Your task to perform on an android device: Search for "usb-c" on target.com, select the first entry, and add it to the cart. Image 0: 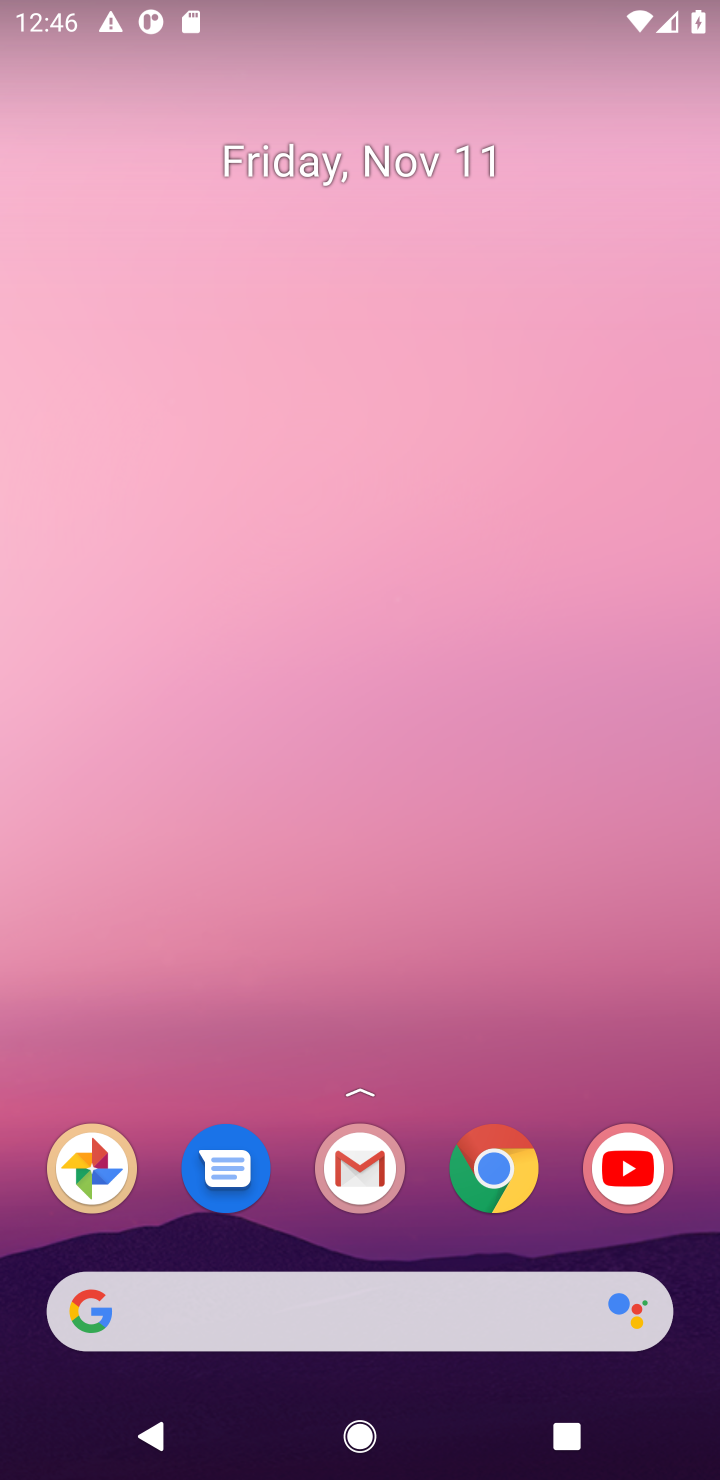
Step 0: click (490, 1180)
Your task to perform on an android device: Search for "usb-c" on target.com, select the first entry, and add it to the cart. Image 1: 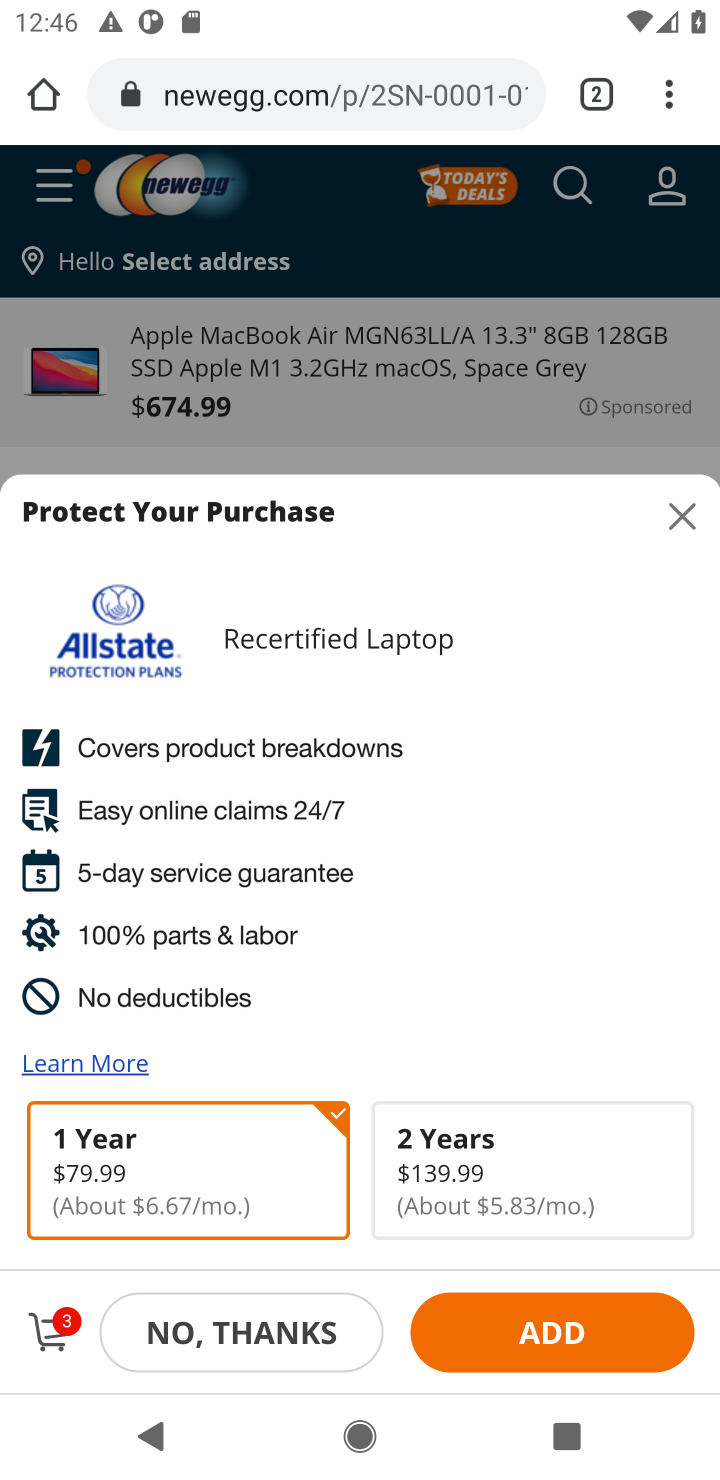
Step 1: click (286, 114)
Your task to perform on an android device: Search for "usb-c" on target.com, select the first entry, and add it to the cart. Image 2: 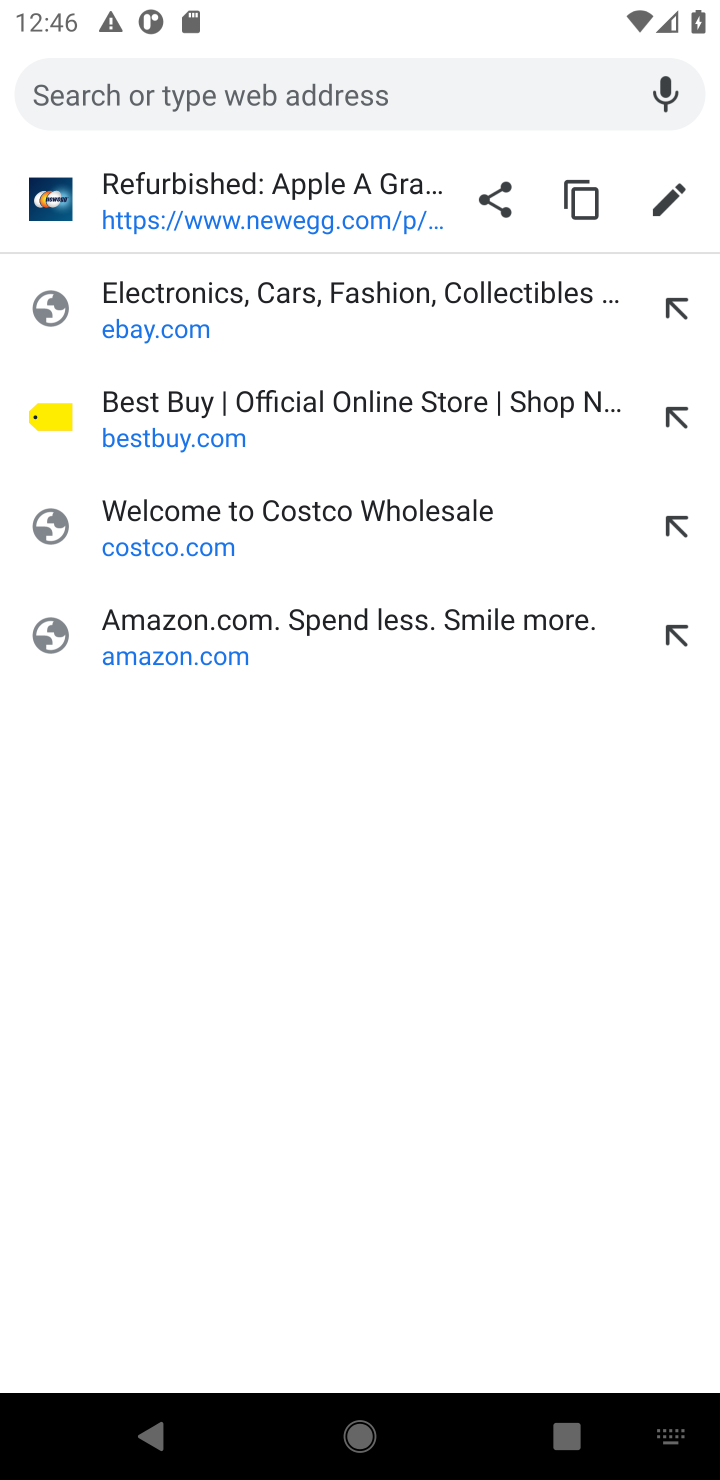
Step 2: type "target.com"
Your task to perform on an android device: Search for "usb-c" on target.com, select the first entry, and add it to the cart. Image 3: 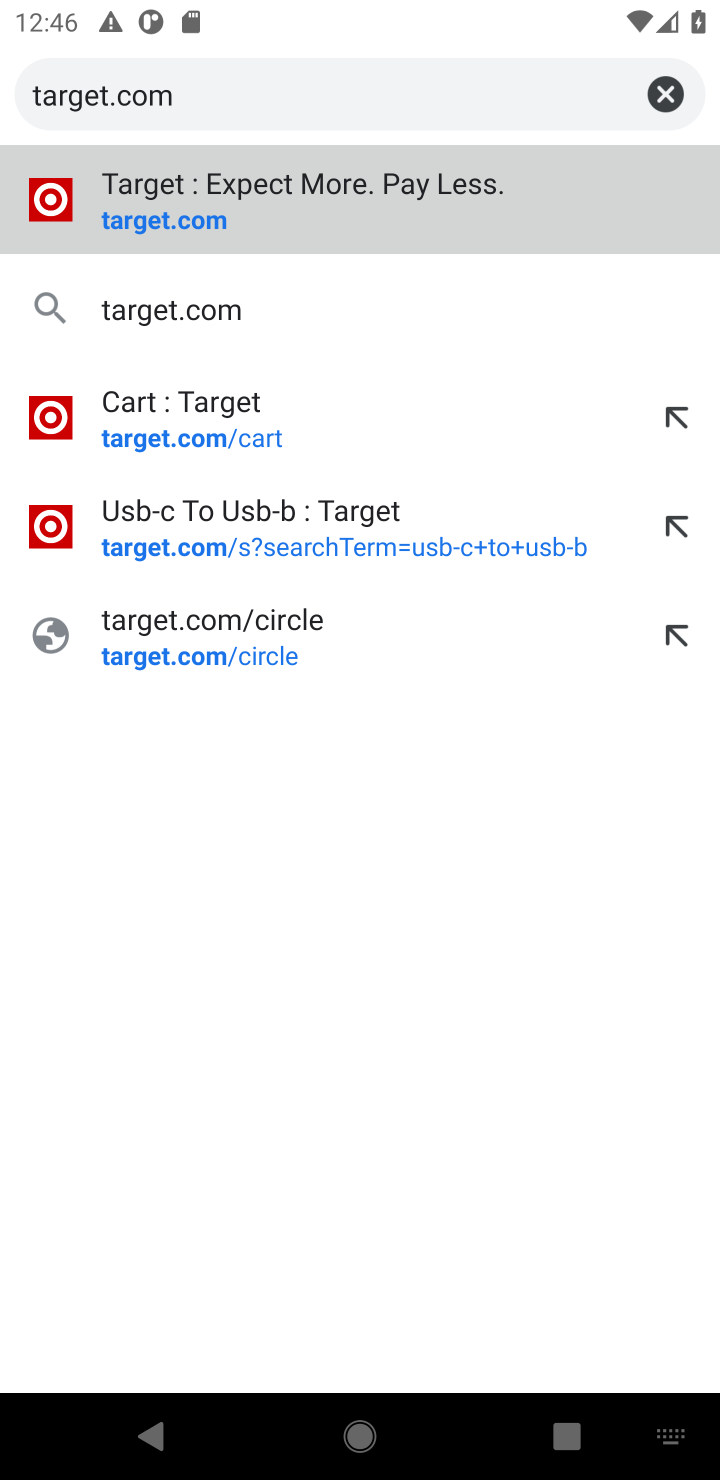
Step 3: click (159, 224)
Your task to perform on an android device: Search for "usb-c" on target.com, select the first entry, and add it to the cart. Image 4: 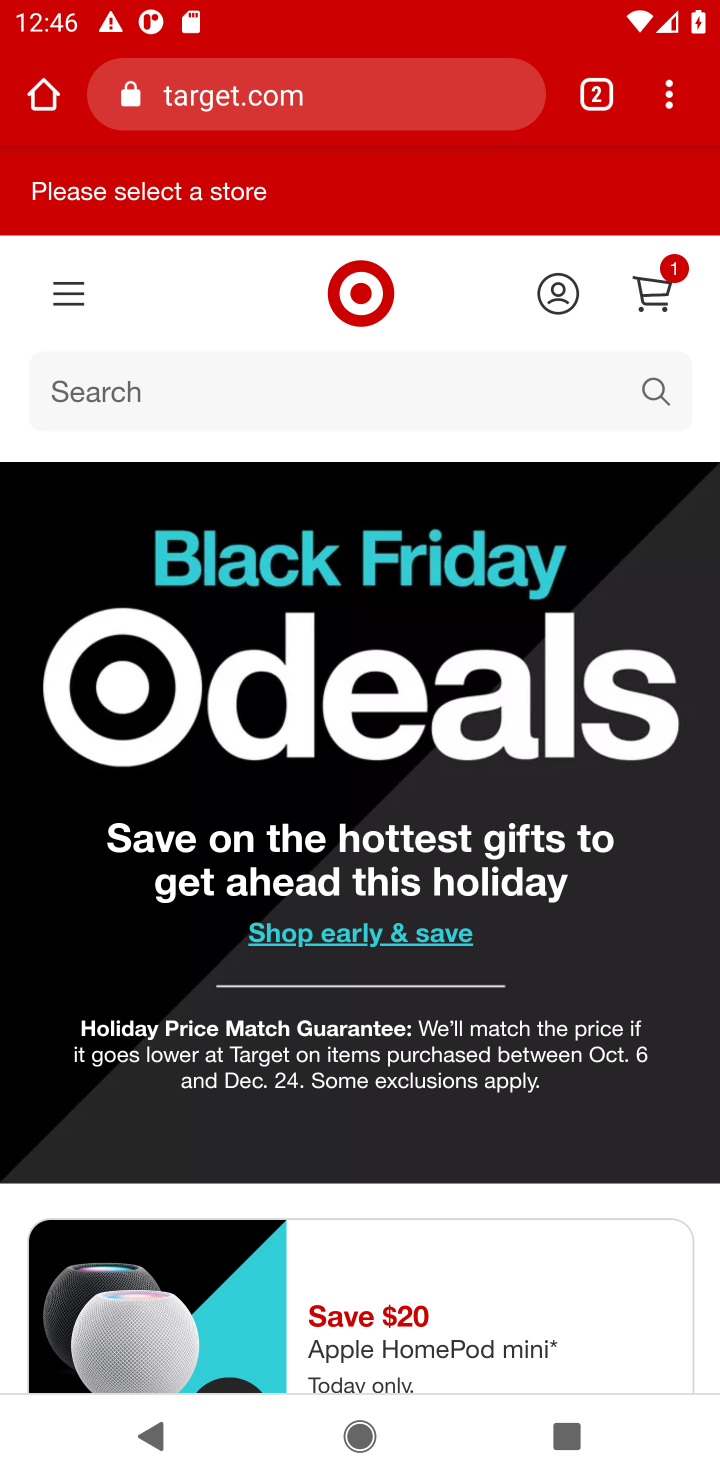
Step 4: click (653, 400)
Your task to perform on an android device: Search for "usb-c" on target.com, select the first entry, and add it to the cart. Image 5: 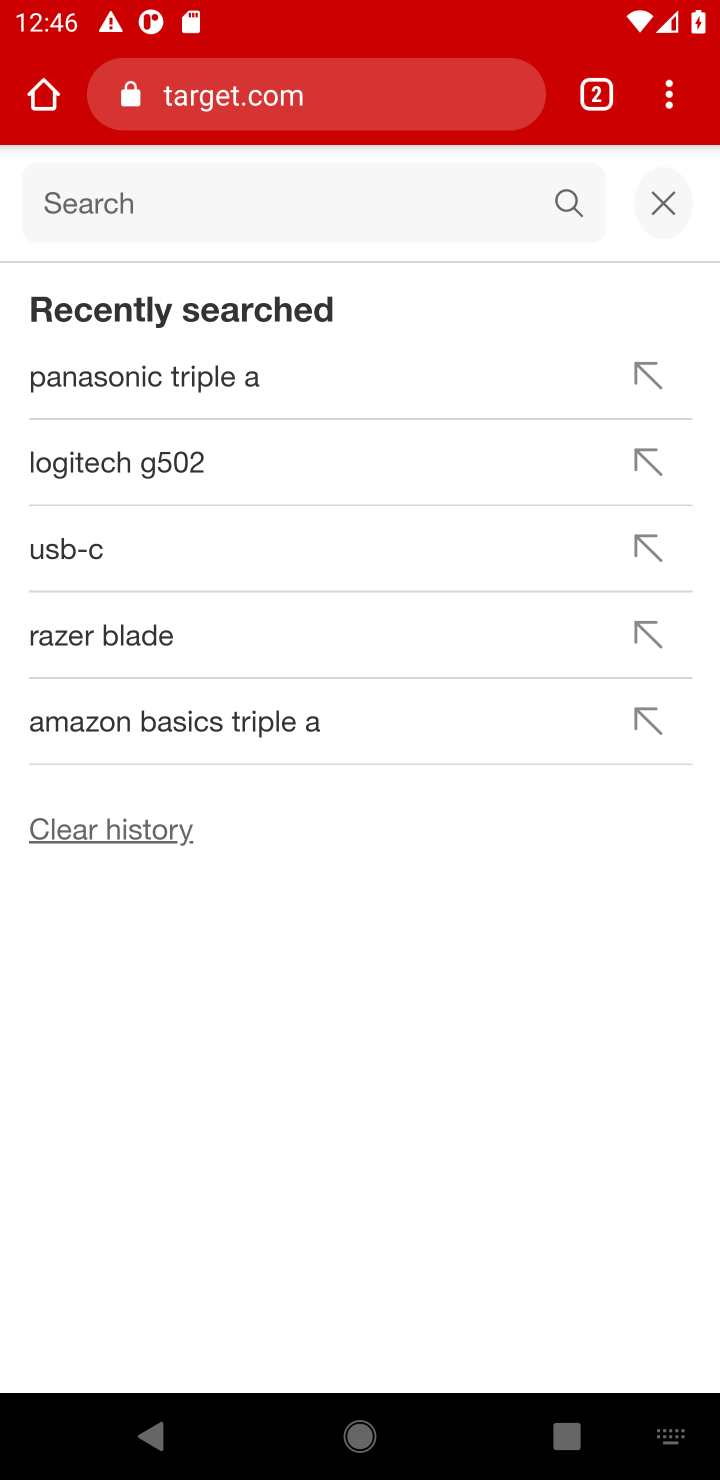
Step 5: type "usb-c"
Your task to perform on an android device: Search for "usb-c" on target.com, select the first entry, and add it to the cart. Image 6: 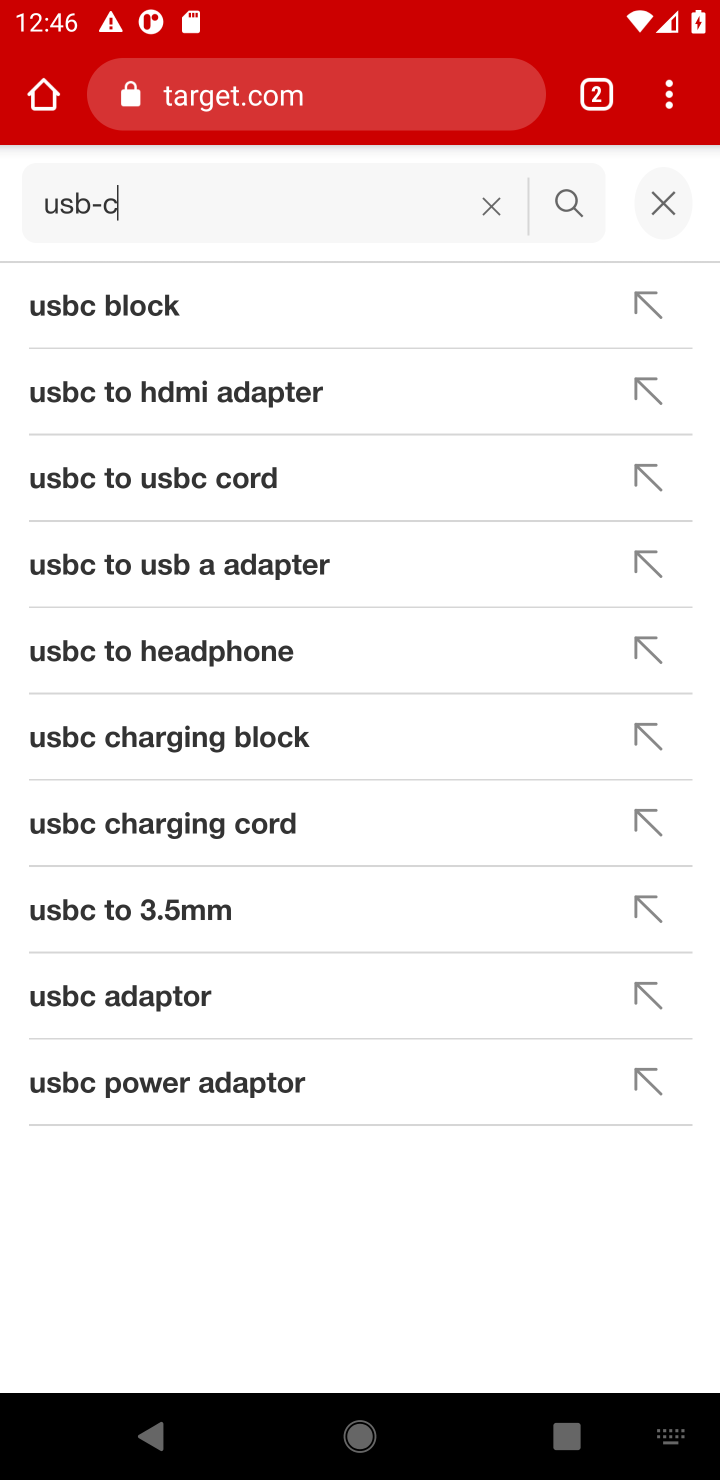
Step 6: click (566, 202)
Your task to perform on an android device: Search for "usb-c" on target.com, select the first entry, and add it to the cart. Image 7: 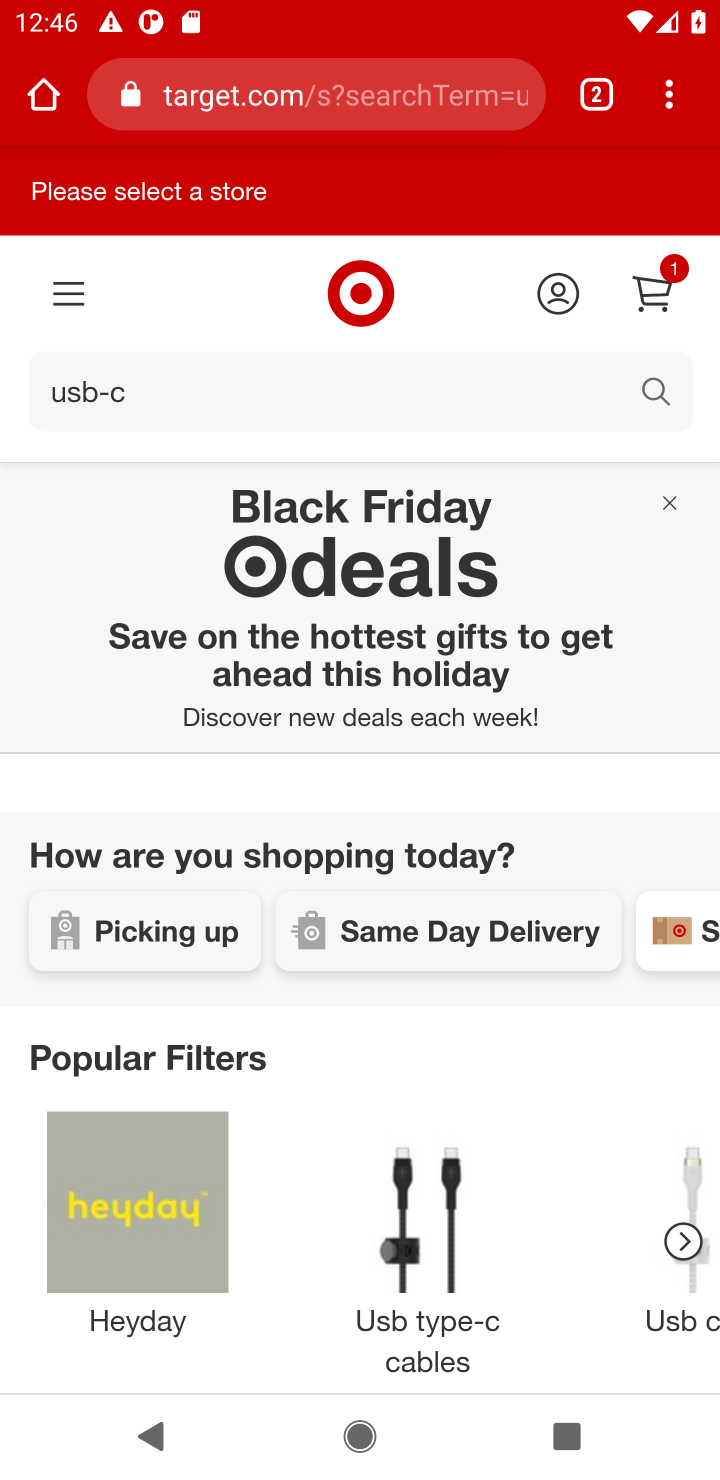
Step 7: drag from (420, 1023) to (438, 530)
Your task to perform on an android device: Search for "usb-c" on target.com, select the first entry, and add it to the cart. Image 8: 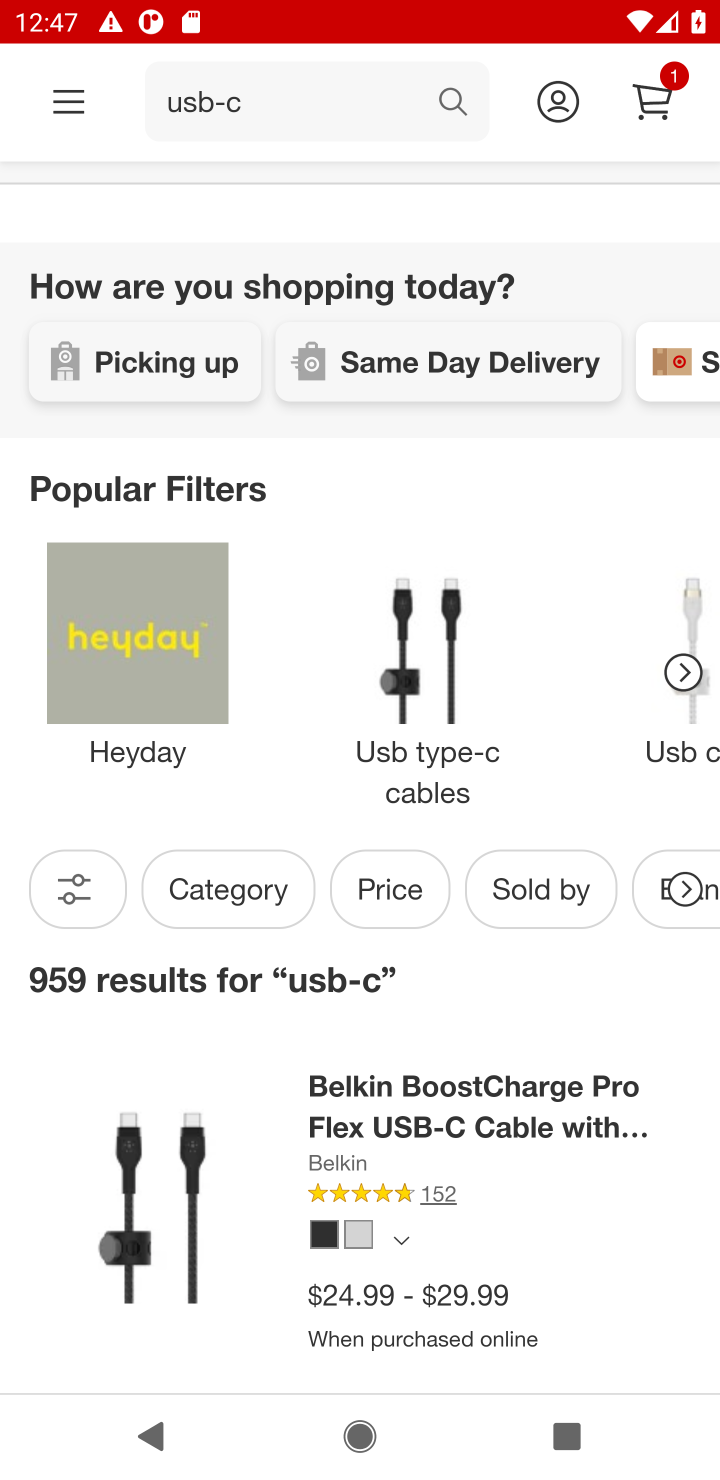
Step 8: drag from (401, 968) to (395, 560)
Your task to perform on an android device: Search for "usb-c" on target.com, select the first entry, and add it to the cart. Image 9: 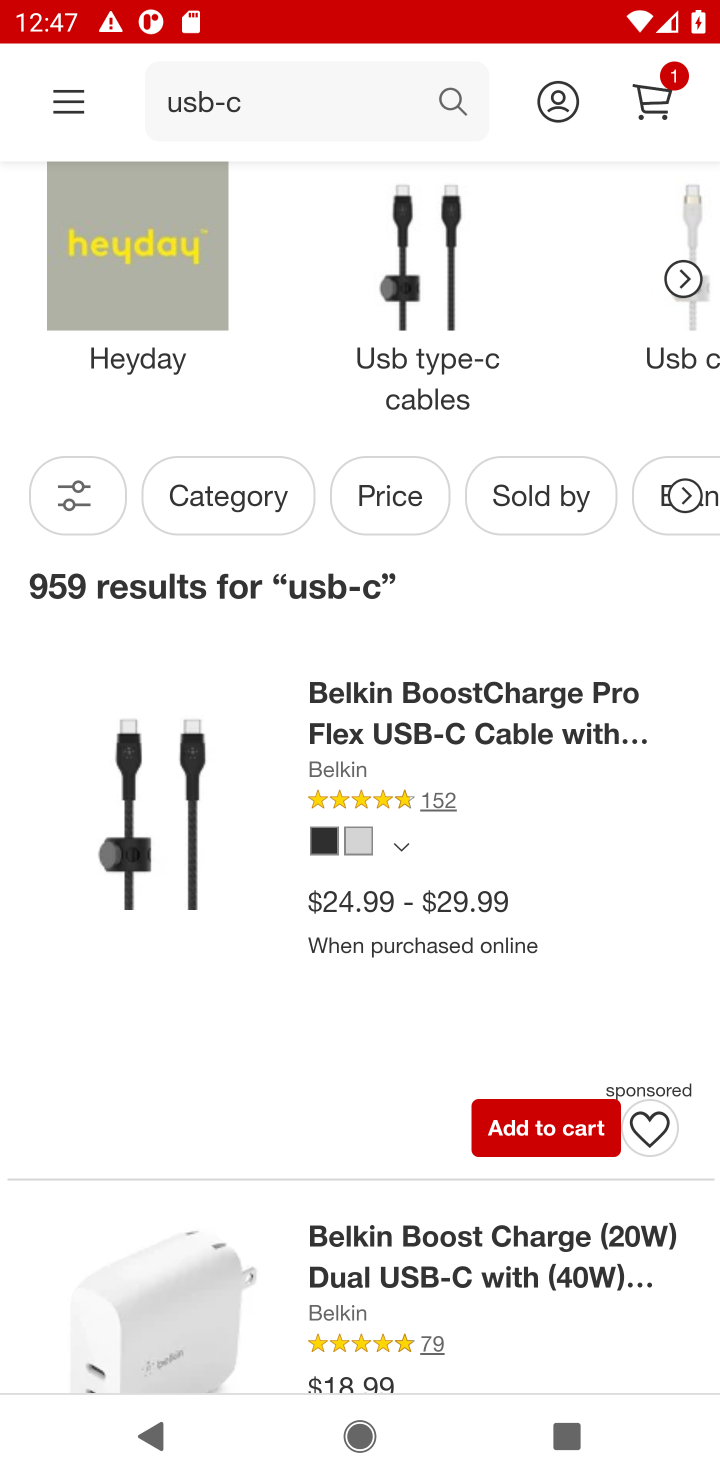
Step 9: click (514, 1118)
Your task to perform on an android device: Search for "usb-c" on target.com, select the first entry, and add it to the cart. Image 10: 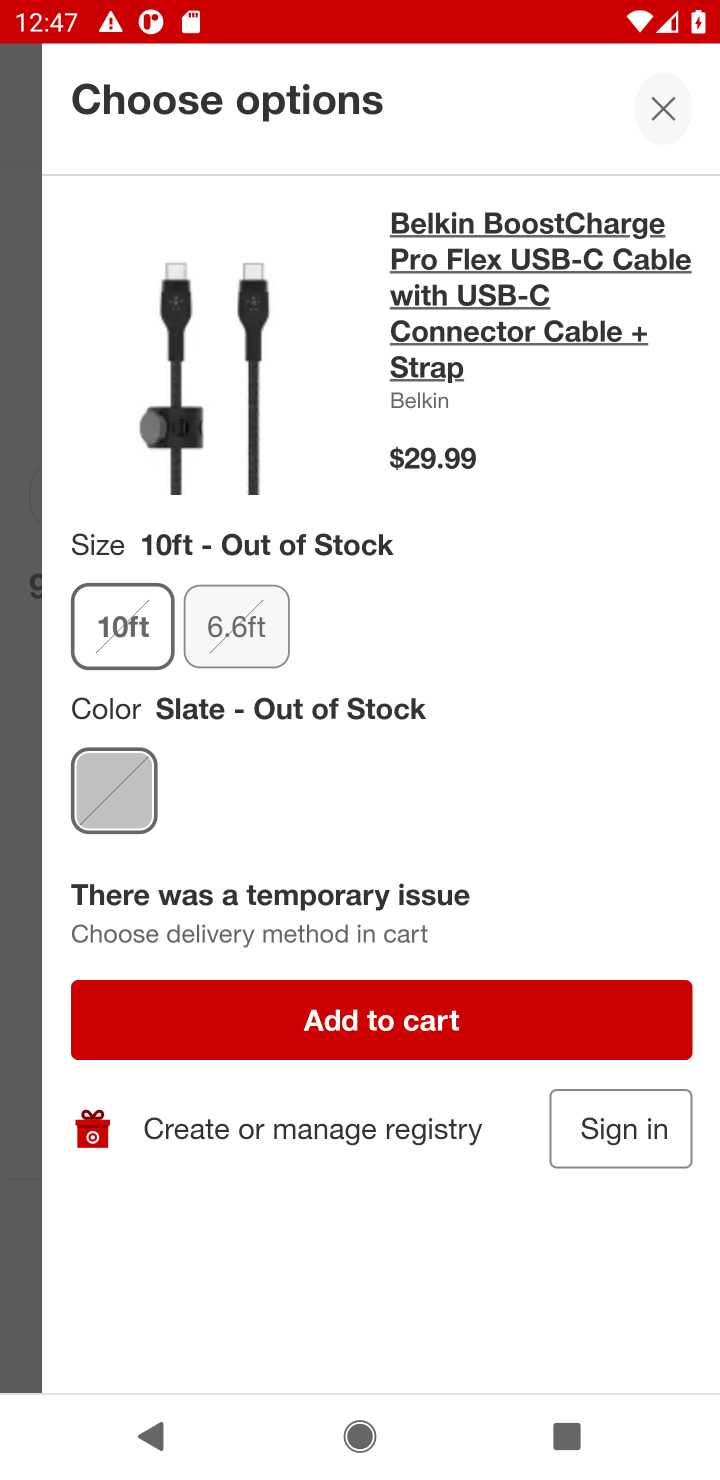
Step 10: click (401, 1017)
Your task to perform on an android device: Search for "usb-c" on target.com, select the first entry, and add it to the cart. Image 11: 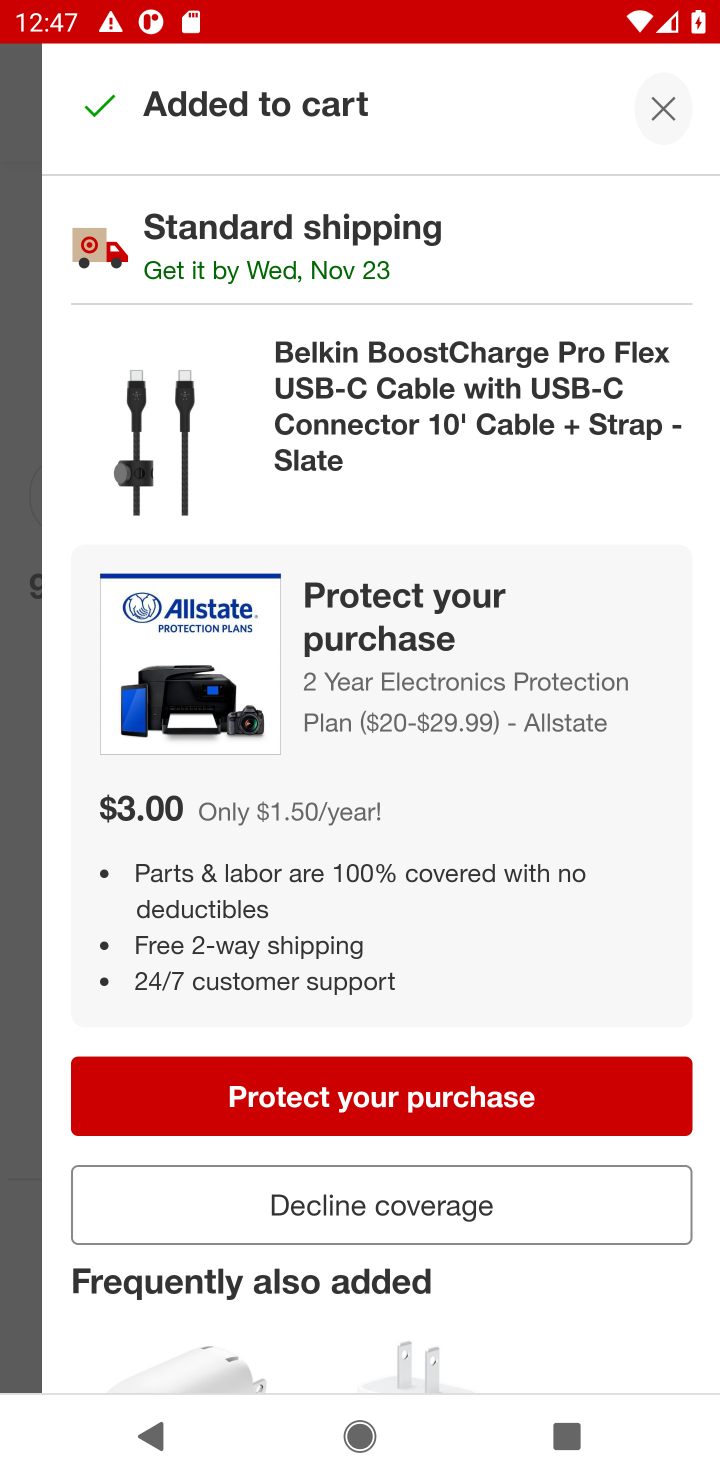
Step 11: task complete